Your task to perform on an android device: Open the web browser Image 0: 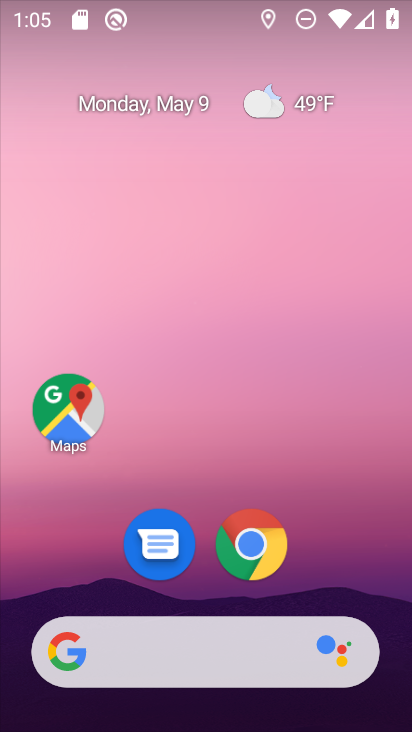
Step 0: drag from (338, 560) to (318, 163)
Your task to perform on an android device: Open the web browser Image 1: 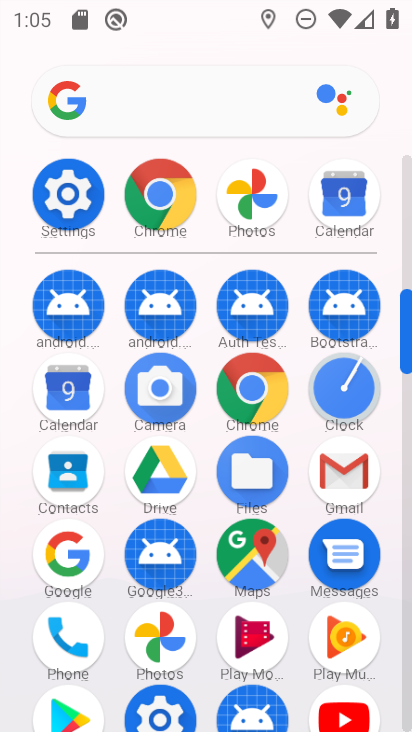
Step 1: click (180, 213)
Your task to perform on an android device: Open the web browser Image 2: 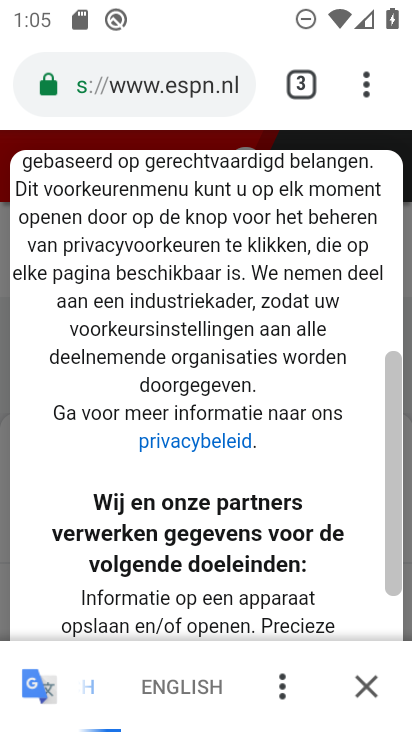
Step 2: task complete